Your task to perform on an android device: check google app version Image 0: 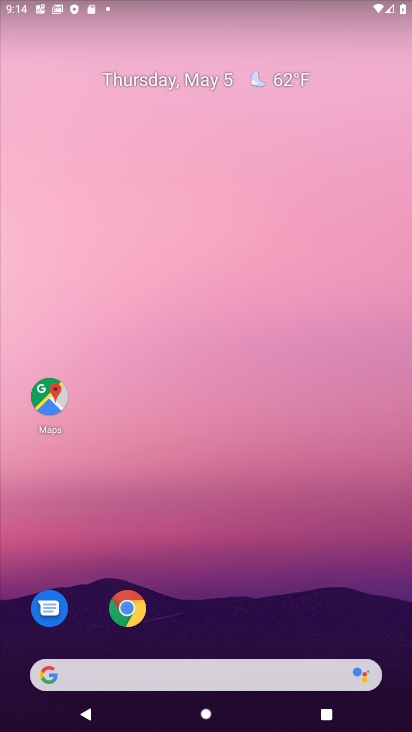
Step 0: drag from (264, 551) to (138, 4)
Your task to perform on an android device: check google app version Image 1: 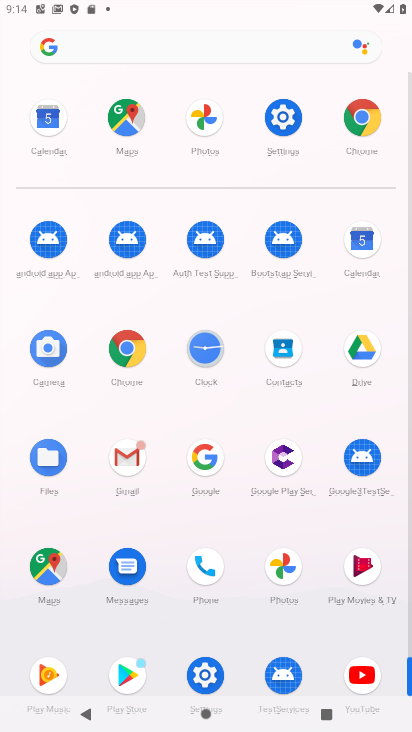
Step 1: drag from (9, 509) to (5, 251)
Your task to perform on an android device: check google app version Image 2: 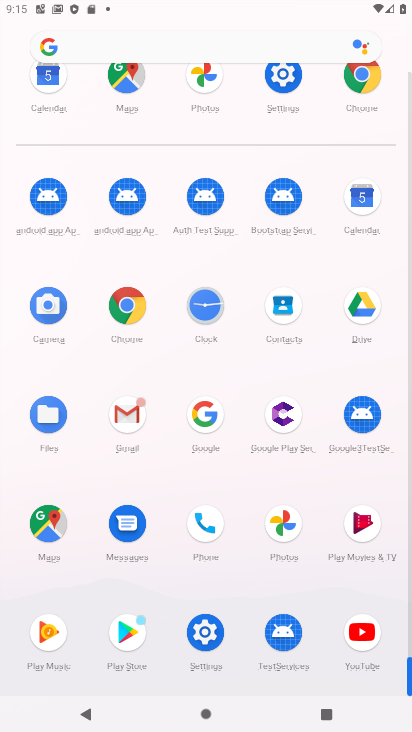
Step 2: click (200, 413)
Your task to perform on an android device: check google app version Image 3: 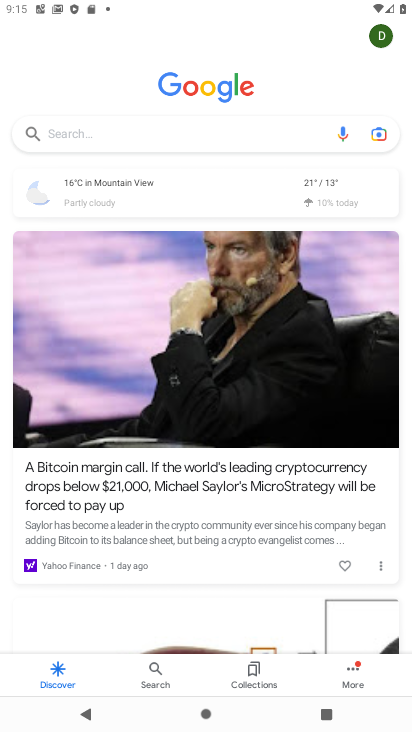
Step 3: click (349, 672)
Your task to perform on an android device: check google app version Image 4: 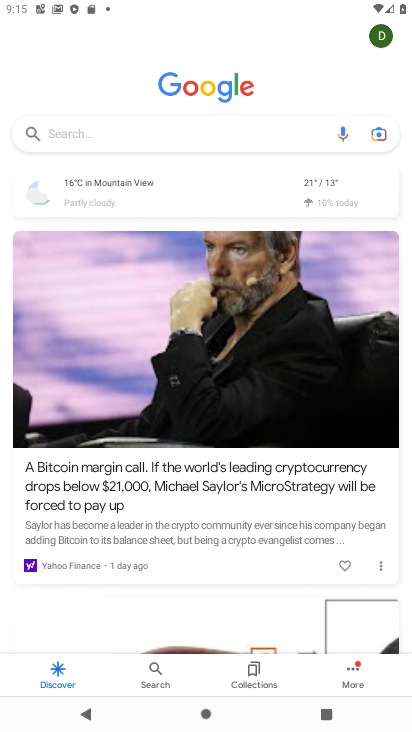
Step 4: click (357, 668)
Your task to perform on an android device: check google app version Image 5: 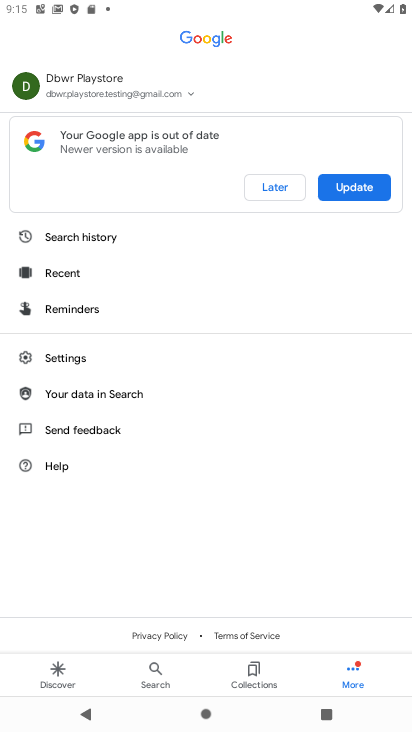
Step 5: click (67, 357)
Your task to perform on an android device: check google app version Image 6: 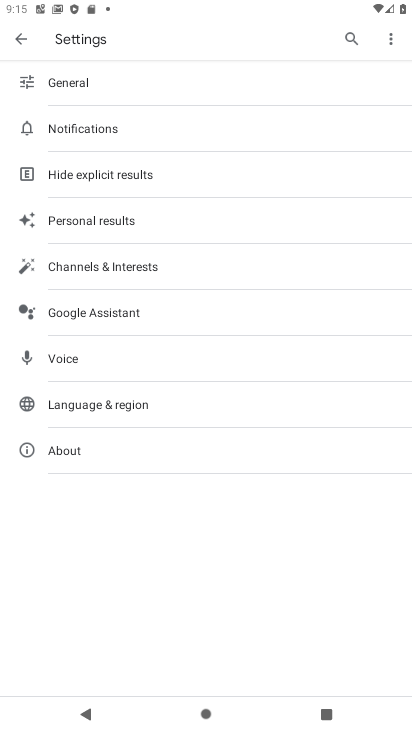
Step 6: click (75, 451)
Your task to perform on an android device: check google app version Image 7: 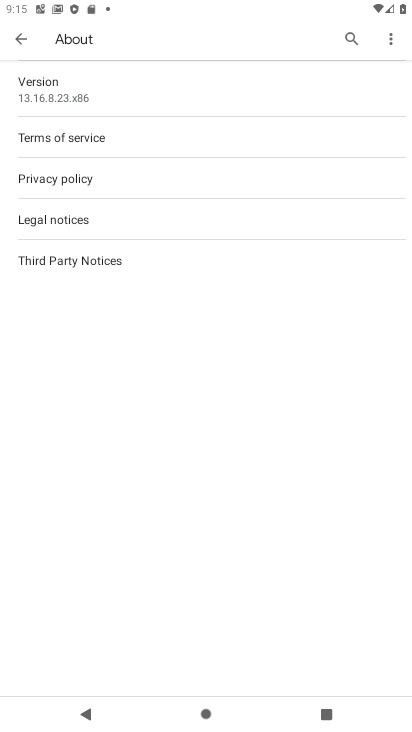
Step 7: task complete